Your task to perform on an android device: turn off location history Image 0: 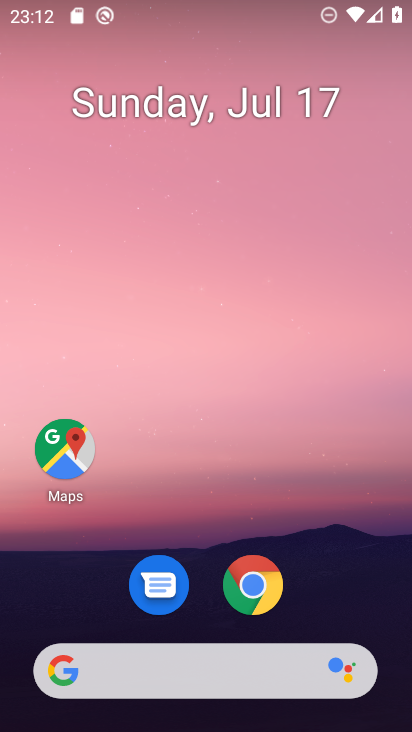
Step 0: drag from (164, 680) to (283, 144)
Your task to perform on an android device: turn off location history Image 1: 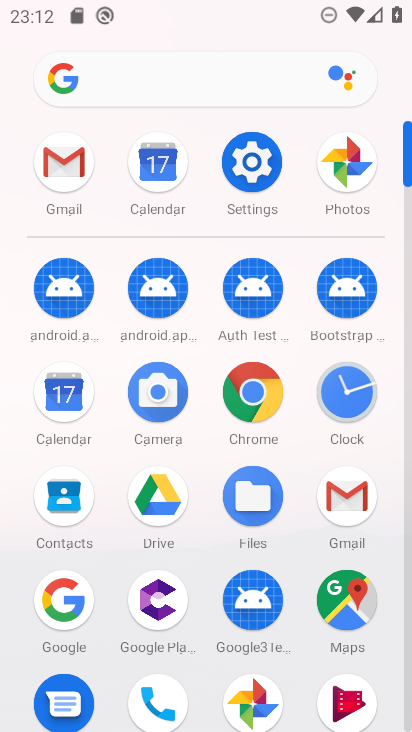
Step 1: click (336, 592)
Your task to perform on an android device: turn off location history Image 2: 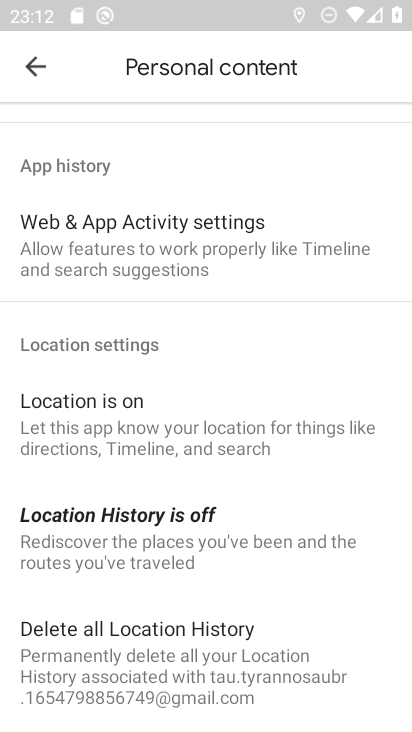
Step 2: click (136, 524)
Your task to perform on an android device: turn off location history Image 3: 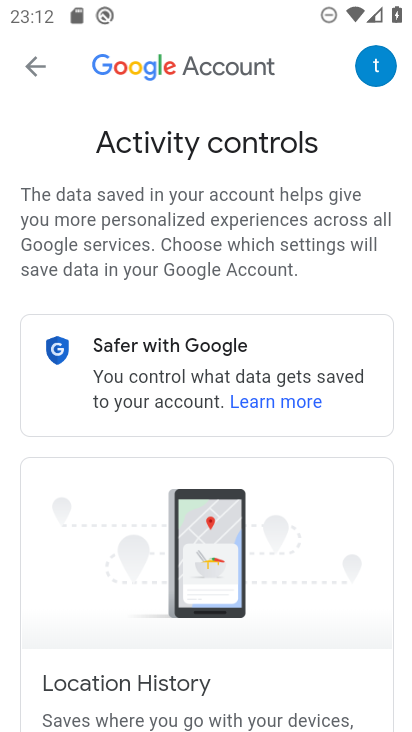
Step 3: drag from (211, 636) to (309, 99)
Your task to perform on an android device: turn off location history Image 4: 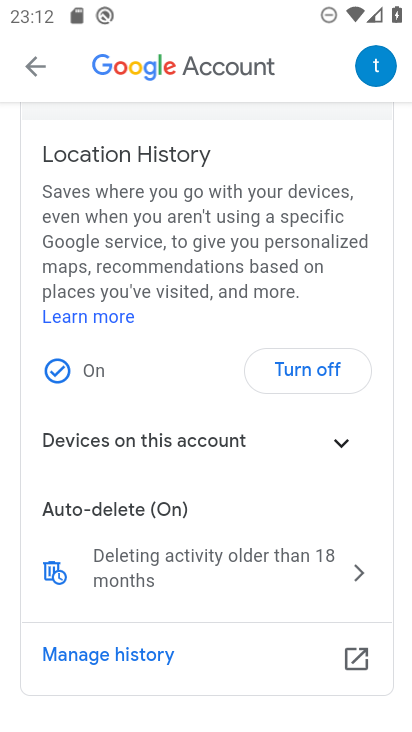
Step 4: click (317, 373)
Your task to perform on an android device: turn off location history Image 5: 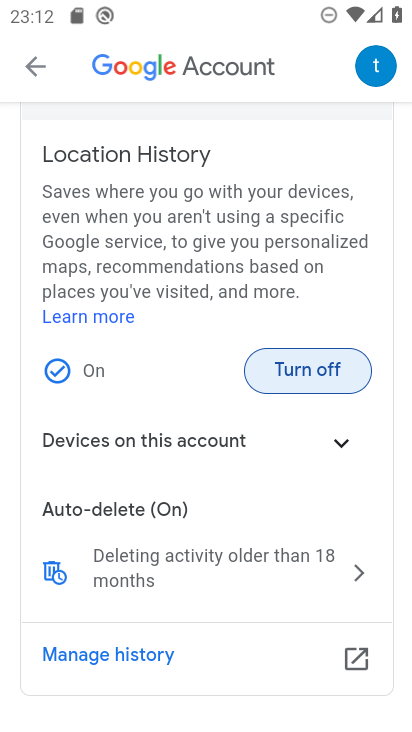
Step 5: click (300, 378)
Your task to perform on an android device: turn off location history Image 6: 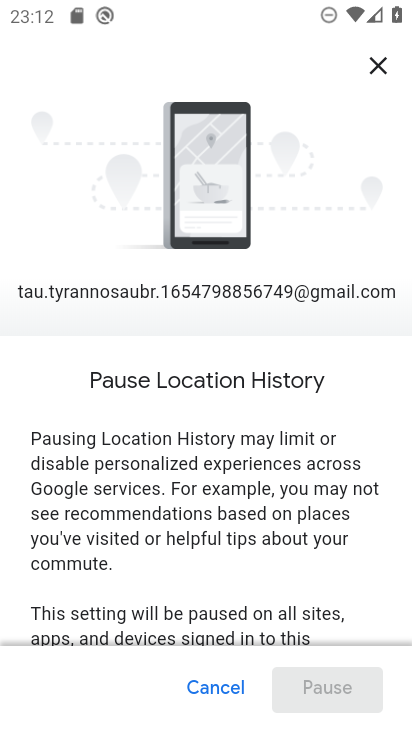
Step 6: drag from (280, 621) to (349, 135)
Your task to perform on an android device: turn off location history Image 7: 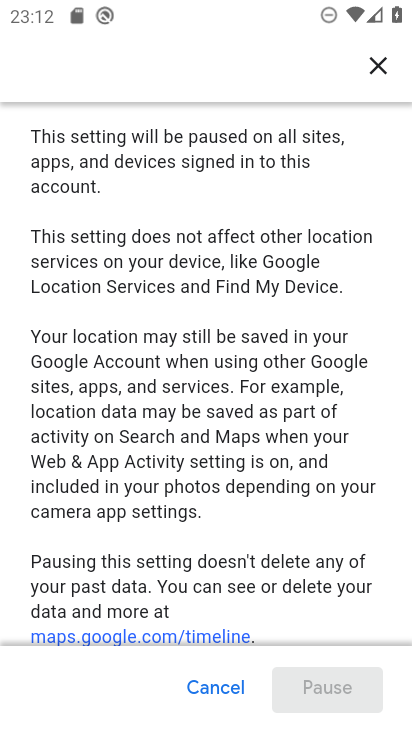
Step 7: drag from (305, 610) to (393, 63)
Your task to perform on an android device: turn off location history Image 8: 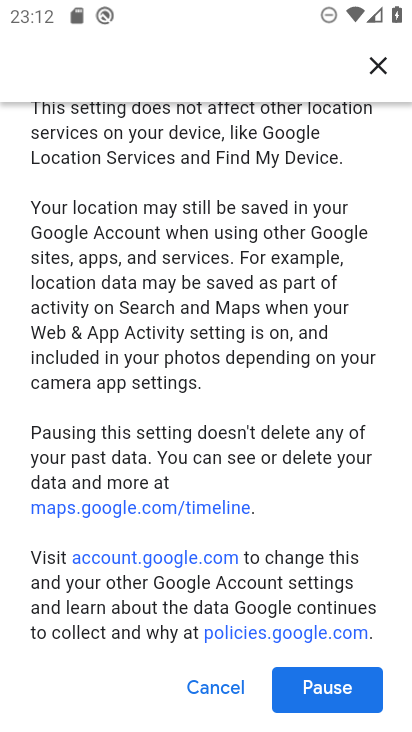
Step 8: click (326, 695)
Your task to perform on an android device: turn off location history Image 9: 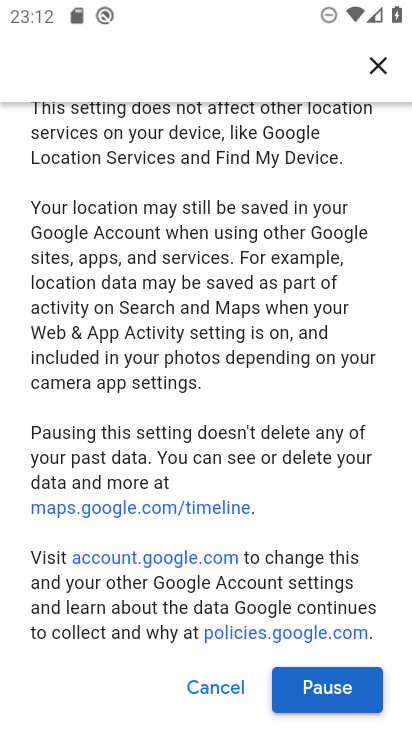
Step 9: click (340, 684)
Your task to perform on an android device: turn off location history Image 10: 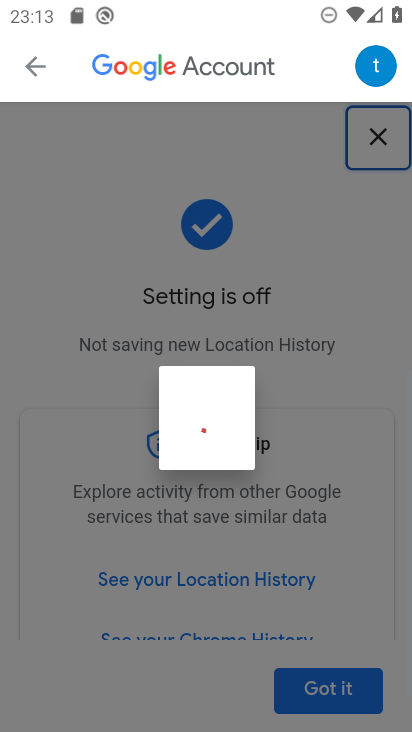
Step 10: click (316, 694)
Your task to perform on an android device: turn off location history Image 11: 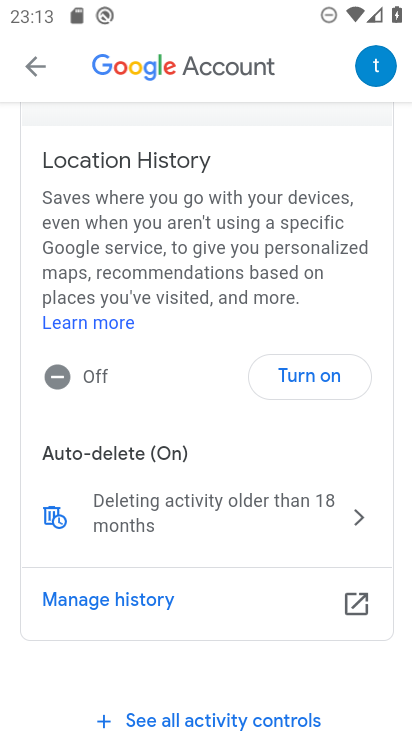
Step 11: task complete